Your task to perform on an android device: clear history in the chrome app Image 0: 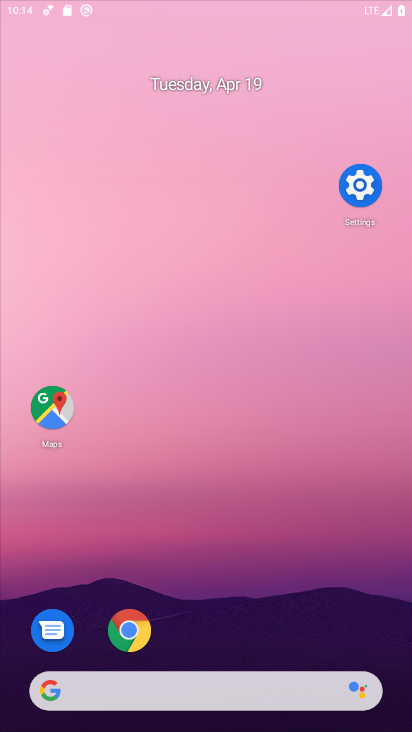
Step 0: drag from (252, 642) to (401, 165)
Your task to perform on an android device: clear history in the chrome app Image 1: 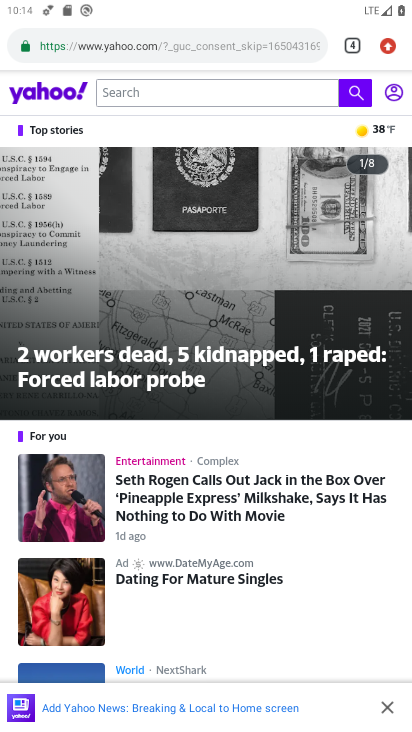
Step 1: click (388, 49)
Your task to perform on an android device: clear history in the chrome app Image 2: 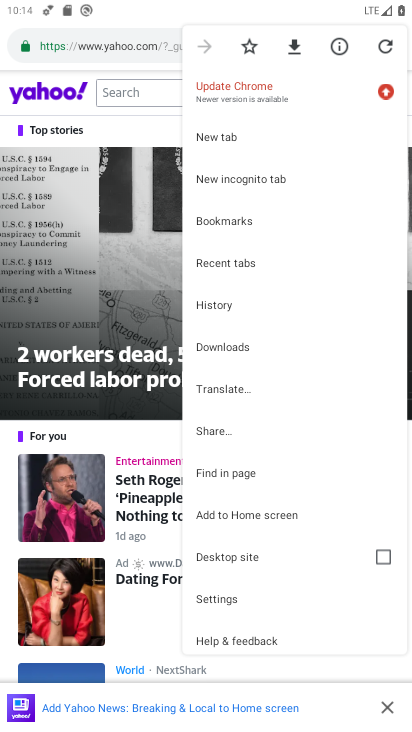
Step 2: click (243, 305)
Your task to perform on an android device: clear history in the chrome app Image 3: 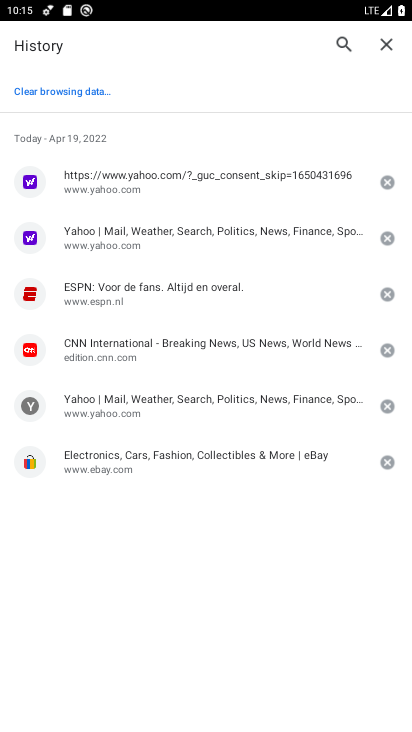
Step 3: click (87, 108)
Your task to perform on an android device: clear history in the chrome app Image 4: 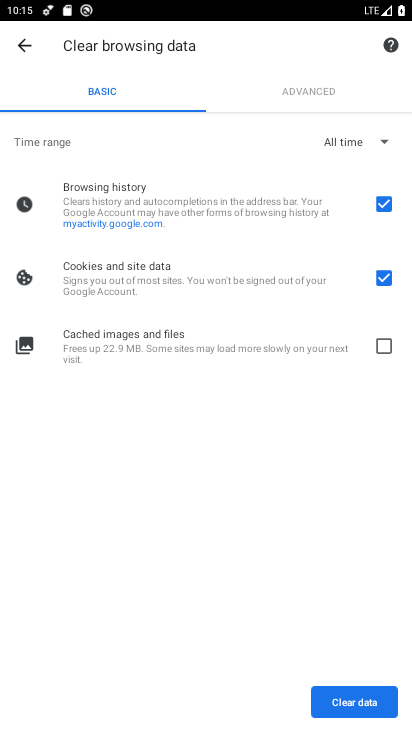
Step 4: click (379, 705)
Your task to perform on an android device: clear history in the chrome app Image 5: 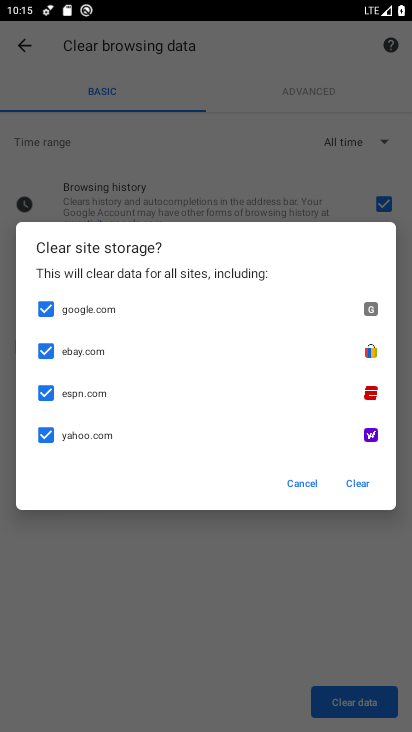
Step 5: click (359, 494)
Your task to perform on an android device: clear history in the chrome app Image 6: 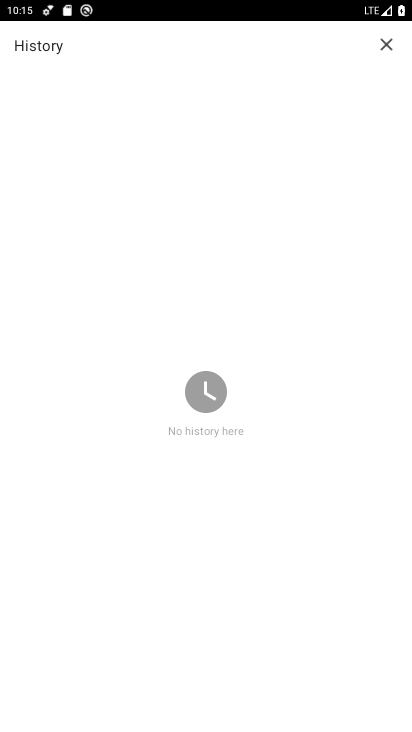
Step 6: task complete